Your task to perform on an android device: turn off translation in the chrome app Image 0: 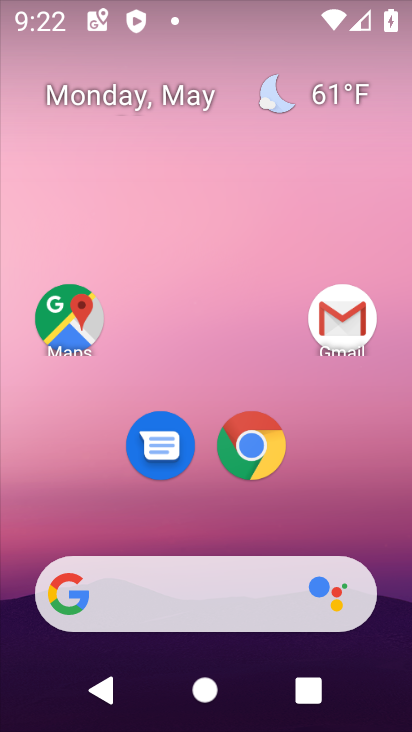
Step 0: drag from (367, 539) to (370, 121)
Your task to perform on an android device: turn off translation in the chrome app Image 1: 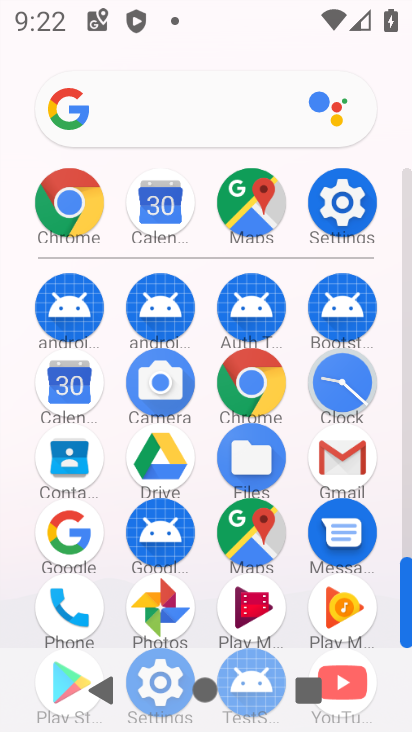
Step 1: click (264, 393)
Your task to perform on an android device: turn off translation in the chrome app Image 2: 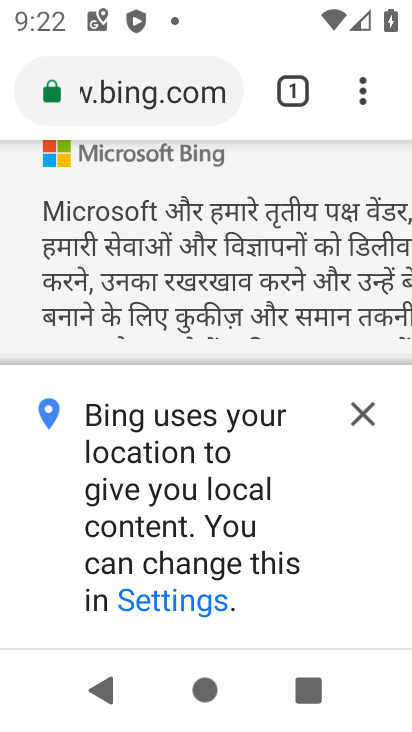
Step 2: click (364, 106)
Your task to perform on an android device: turn off translation in the chrome app Image 3: 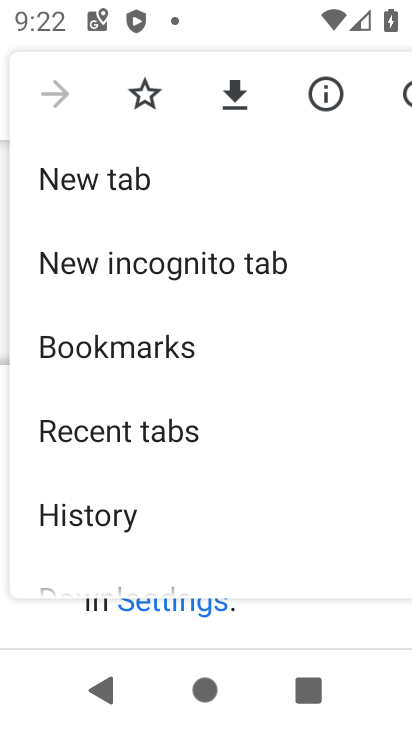
Step 3: drag from (309, 438) to (330, 349)
Your task to perform on an android device: turn off translation in the chrome app Image 4: 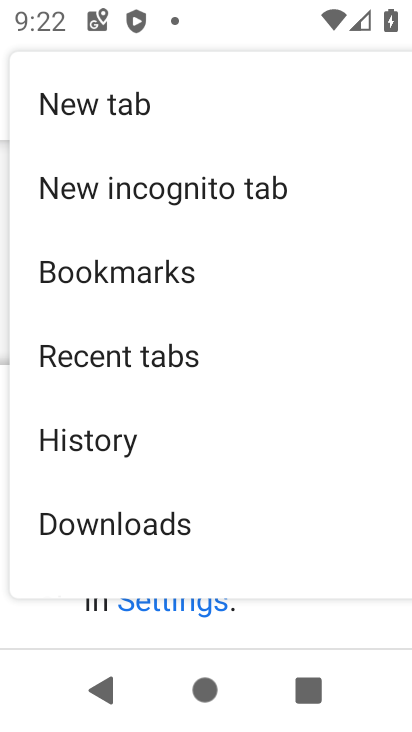
Step 4: drag from (328, 479) to (340, 390)
Your task to perform on an android device: turn off translation in the chrome app Image 5: 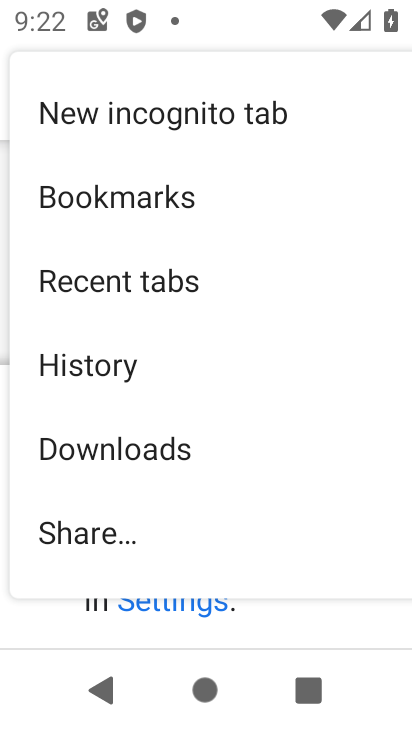
Step 5: drag from (340, 504) to (348, 371)
Your task to perform on an android device: turn off translation in the chrome app Image 6: 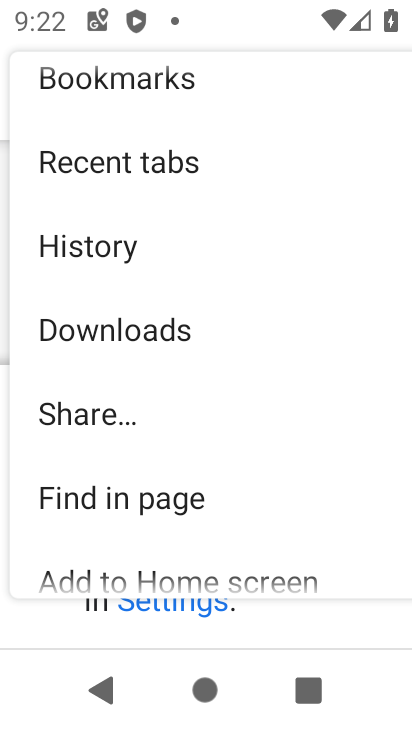
Step 6: drag from (329, 499) to (342, 351)
Your task to perform on an android device: turn off translation in the chrome app Image 7: 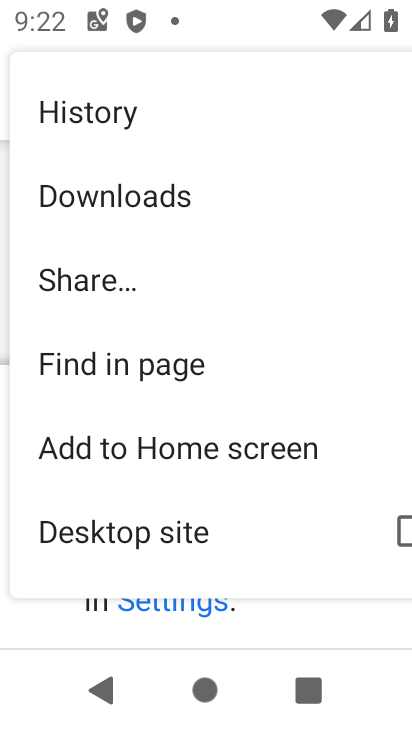
Step 7: drag from (317, 507) to (316, 354)
Your task to perform on an android device: turn off translation in the chrome app Image 8: 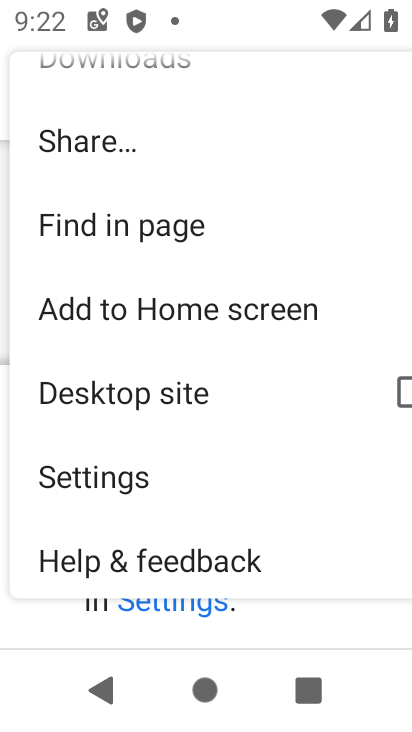
Step 8: drag from (300, 446) to (301, 338)
Your task to perform on an android device: turn off translation in the chrome app Image 9: 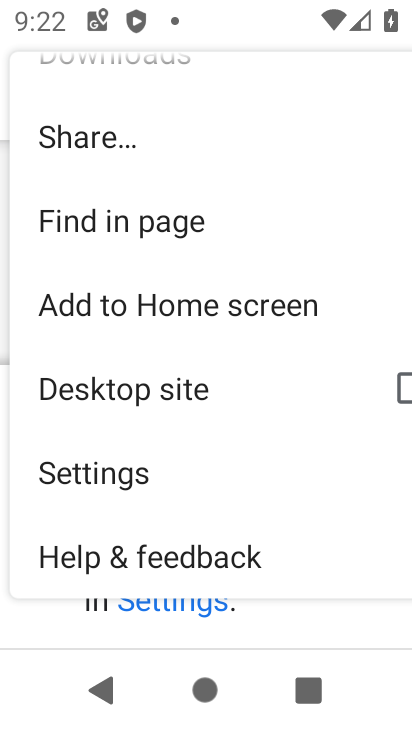
Step 9: click (210, 462)
Your task to perform on an android device: turn off translation in the chrome app Image 10: 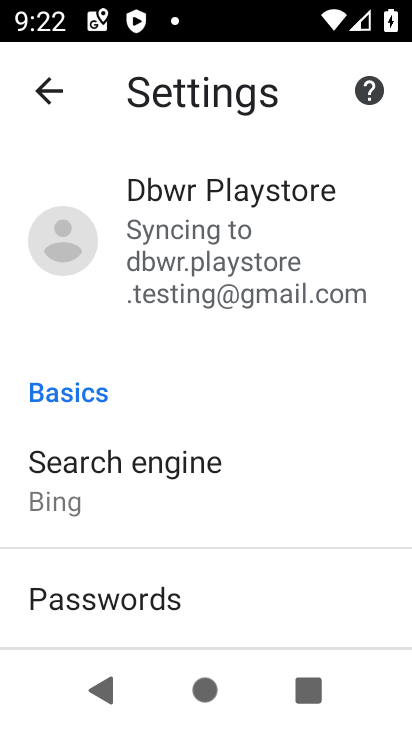
Step 10: drag from (259, 527) to (264, 413)
Your task to perform on an android device: turn off translation in the chrome app Image 11: 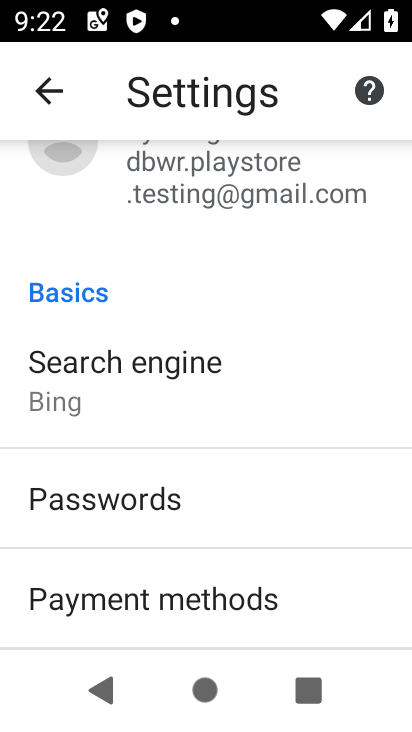
Step 11: drag from (292, 494) to (305, 391)
Your task to perform on an android device: turn off translation in the chrome app Image 12: 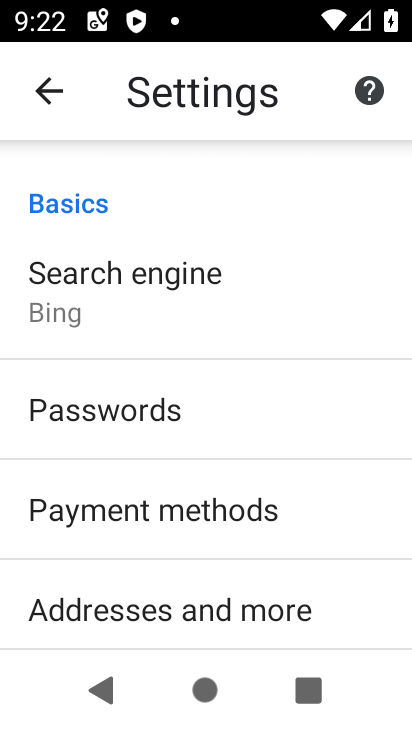
Step 12: drag from (324, 510) to (320, 440)
Your task to perform on an android device: turn off translation in the chrome app Image 13: 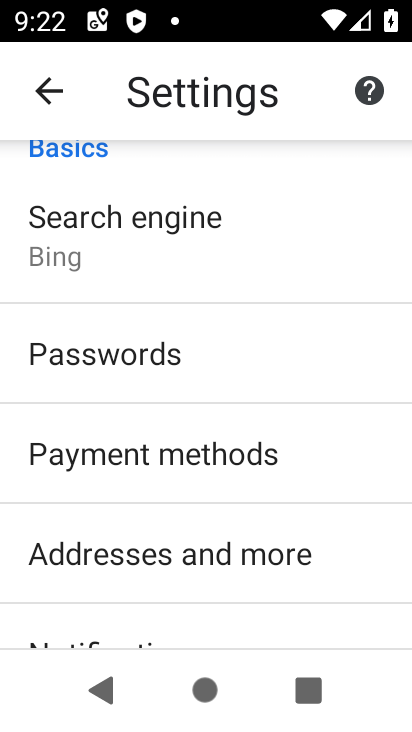
Step 13: drag from (328, 506) to (326, 432)
Your task to perform on an android device: turn off translation in the chrome app Image 14: 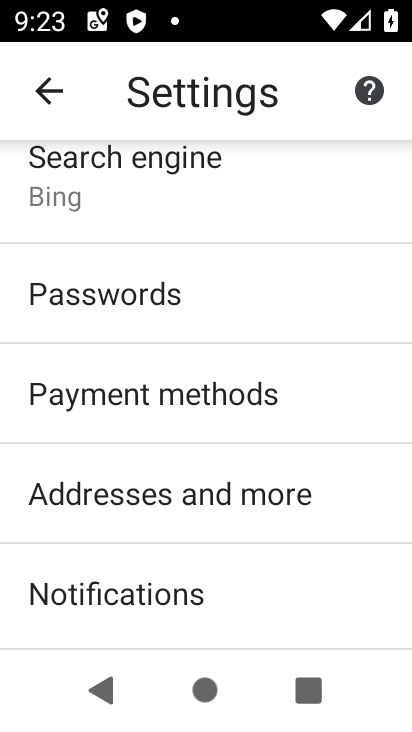
Step 14: drag from (322, 511) to (331, 442)
Your task to perform on an android device: turn off translation in the chrome app Image 15: 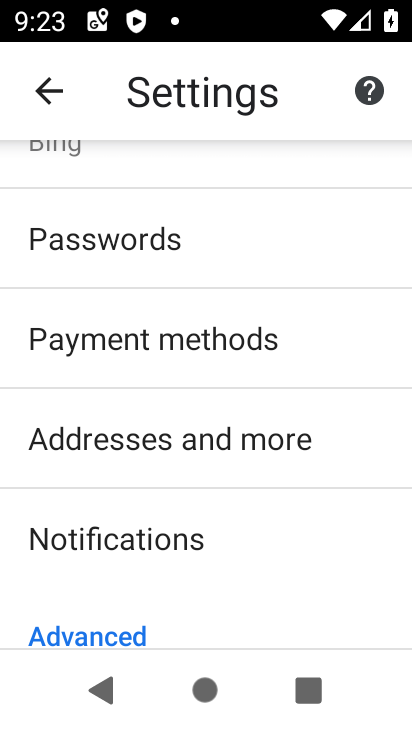
Step 15: drag from (331, 469) to (331, 429)
Your task to perform on an android device: turn off translation in the chrome app Image 16: 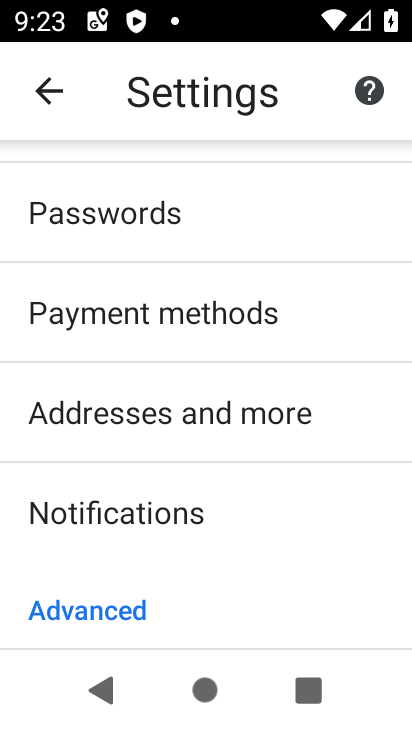
Step 16: drag from (343, 501) to (344, 448)
Your task to perform on an android device: turn off translation in the chrome app Image 17: 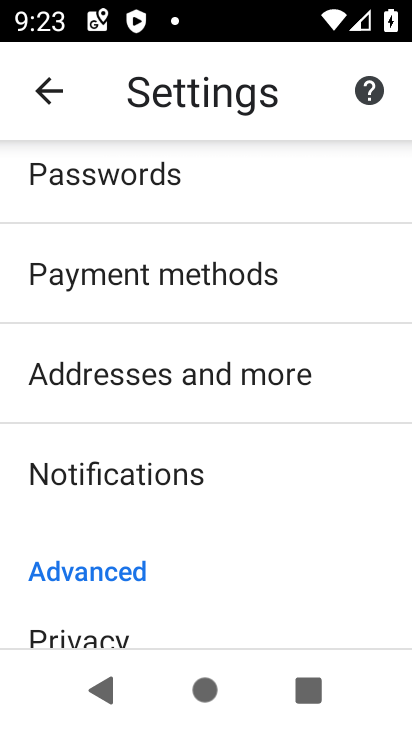
Step 17: drag from (333, 543) to (340, 422)
Your task to perform on an android device: turn off translation in the chrome app Image 18: 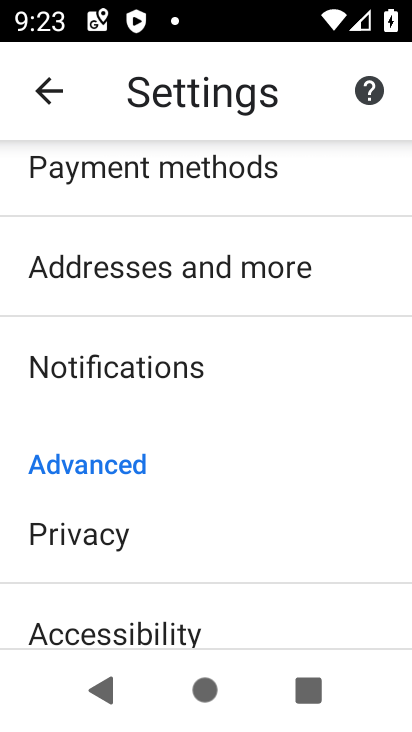
Step 18: drag from (334, 555) to (342, 454)
Your task to perform on an android device: turn off translation in the chrome app Image 19: 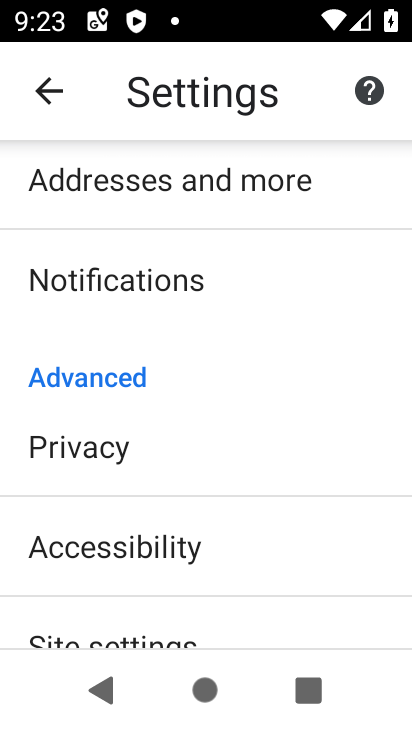
Step 19: drag from (336, 546) to (332, 446)
Your task to perform on an android device: turn off translation in the chrome app Image 20: 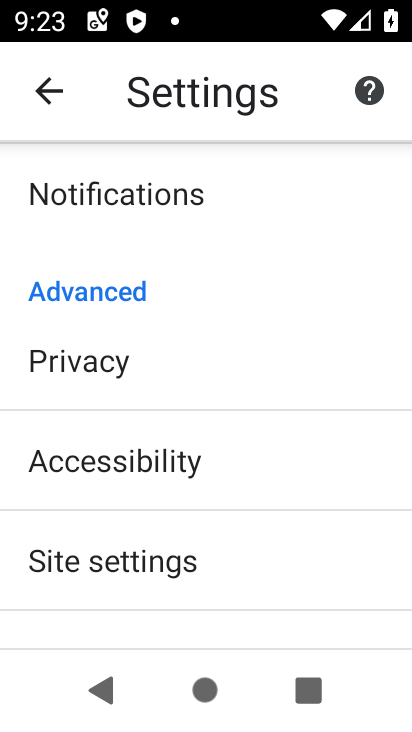
Step 20: click (324, 523)
Your task to perform on an android device: turn off translation in the chrome app Image 21: 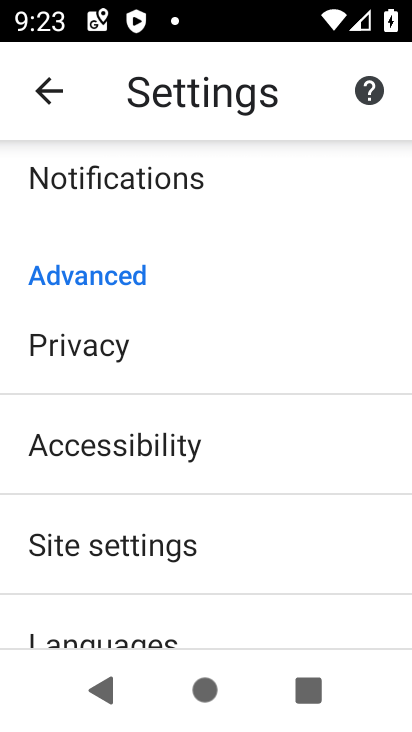
Step 21: drag from (329, 539) to (326, 348)
Your task to perform on an android device: turn off translation in the chrome app Image 22: 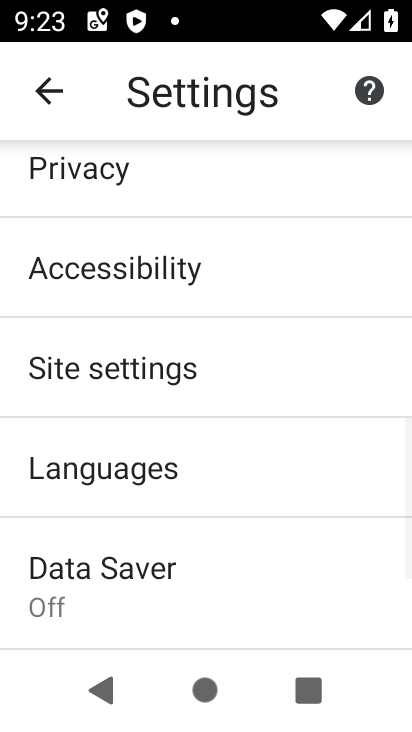
Step 22: click (303, 492)
Your task to perform on an android device: turn off translation in the chrome app Image 23: 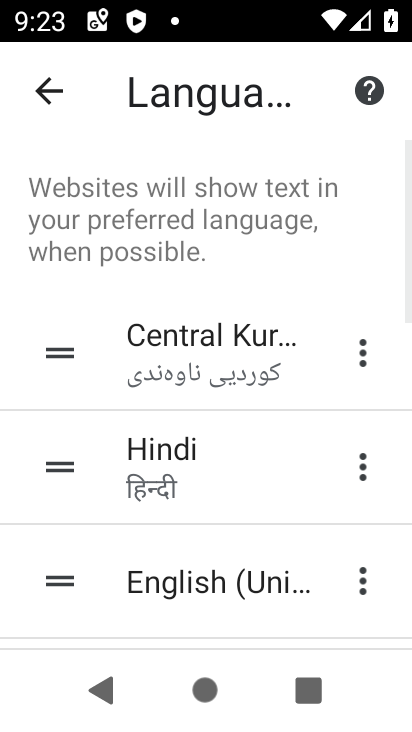
Step 23: drag from (303, 492) to (318, 410)
Your task to perform on an android device: turn off translation in the chrome app Image 24: 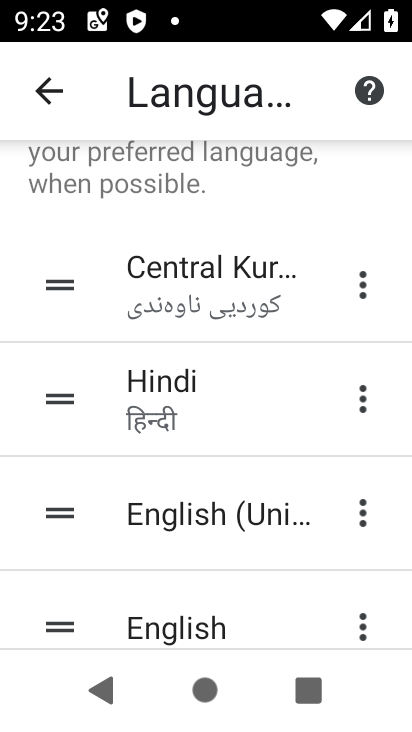
Step 24: drag from (323, 570) to (334, 505)
Your task to perform on an android device: turn off translation in the chrome app Image 25: 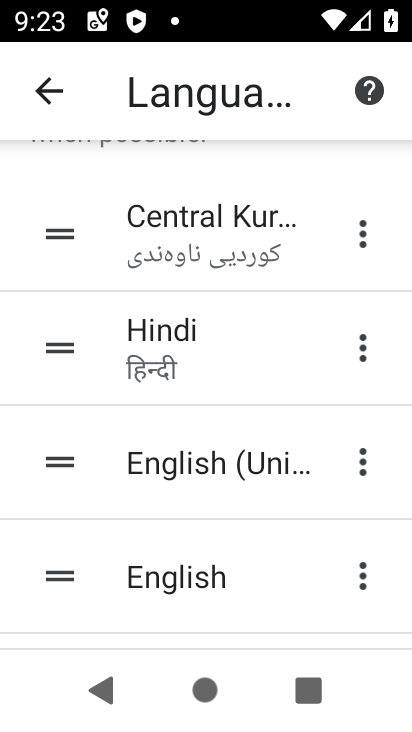
Step 25: drag from (323, 569) to (337, 418)
Your task to perform on an android device: turn off translation in the chrome app Image 26: 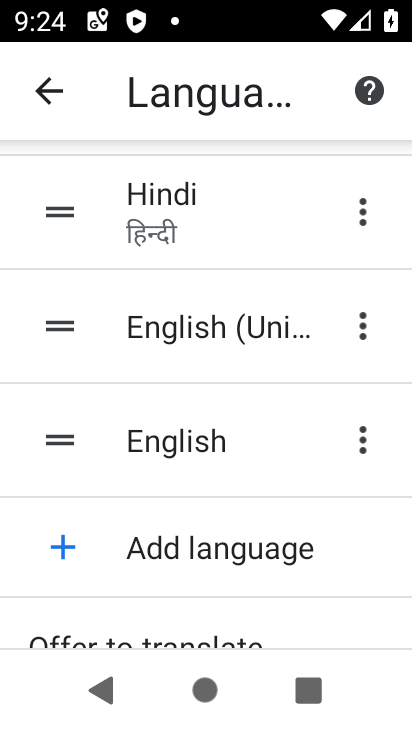
Step 26: drag from (305, 582) to (313, 440)
Your task to perform on an android device: turn off translation in the chrome app Image 27: 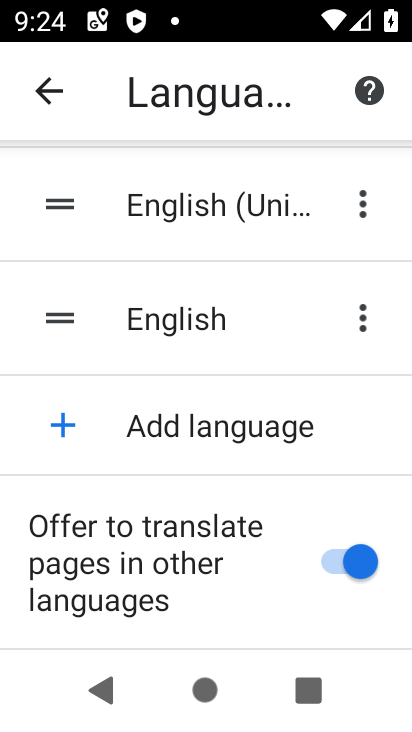
Step 27: click (348, 570)
Your task to perform on an android device: turn off translation in the chrome app Image 28: 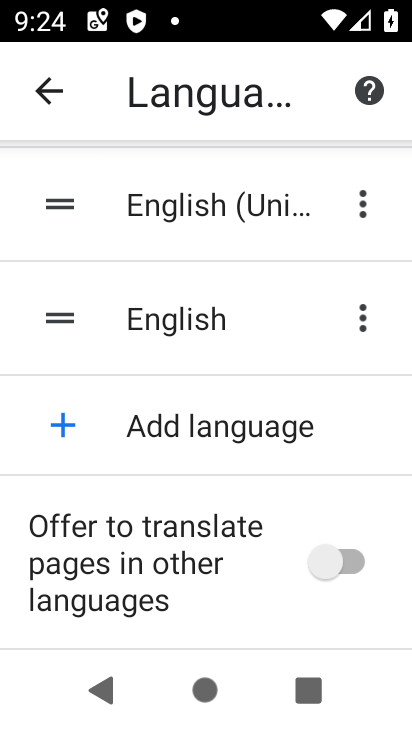
Step 28: task complete